Your task to perform on an android device: Go to CNN.com Image 0: 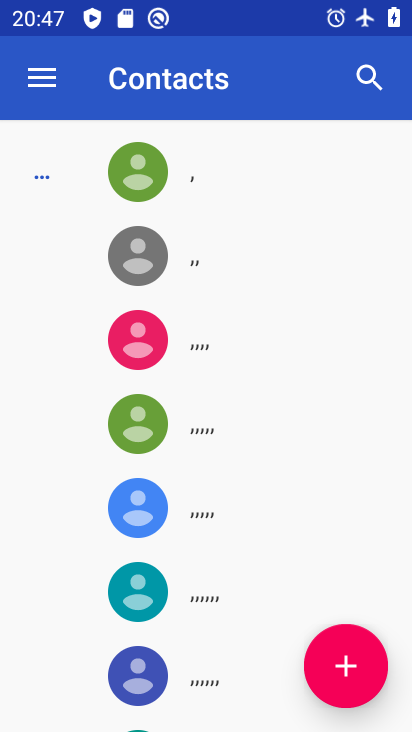
Step 0: press home button
Your task to perform on an android device: Go to CNN.com Image 1: 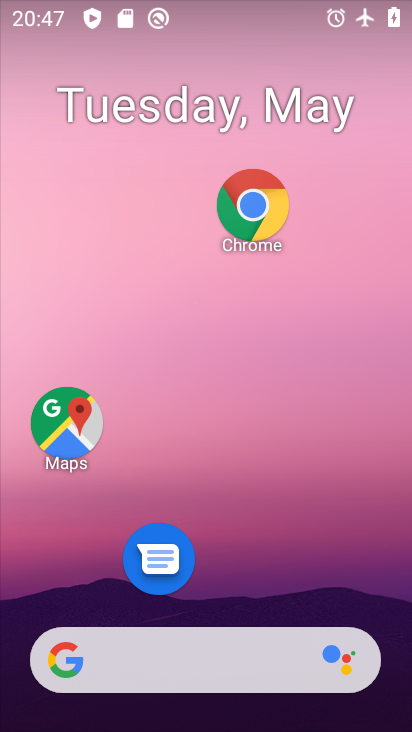
Step 1: click (252, 225)
Your task to perform on an android device: Go to CNN.com Image 2: 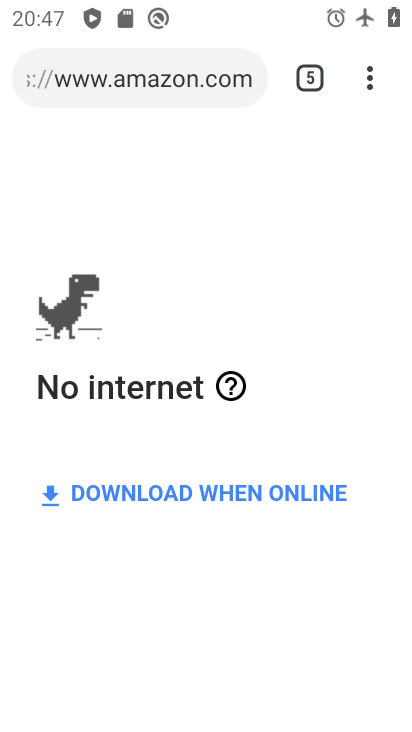
Step 2: click (308, 74)
Your task to perform on an android device: Go to CNN.com Image 3: 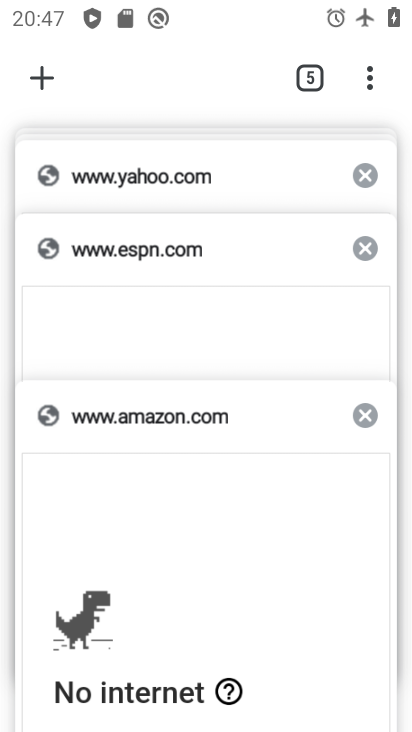
Step 3: click (34, 86)
Your task to perform on an android device: Go to CNN.com Image 4: 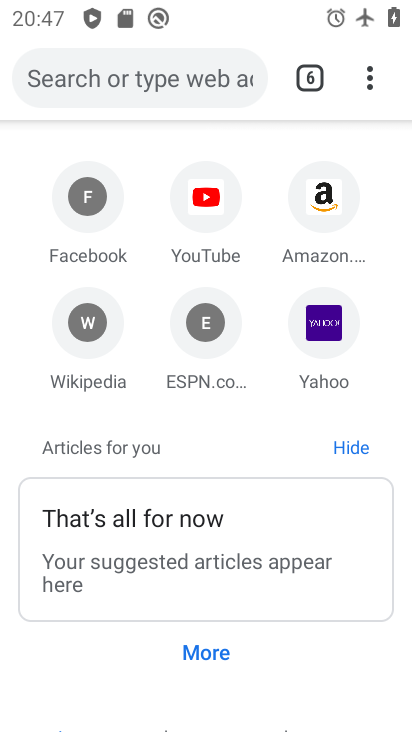
Step 4: click (165, 89)
Your task to perform on an android device: Go to CNN.com Image 5: 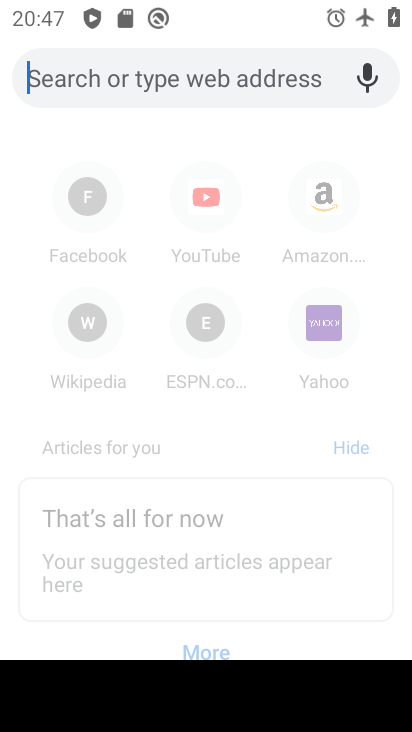
Step 5: type "CNN.com"
Your task to perform on an android device: Go to CNN.com Image 6: 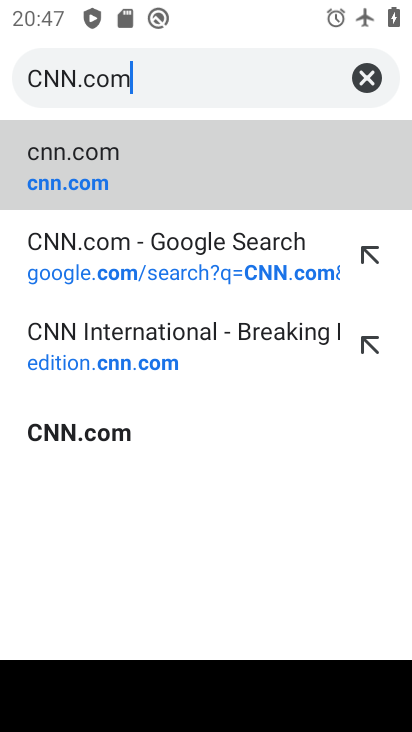
Step 6: click (167, 185)
Your task to perform on an android device: Go to CNN.com Image 7: 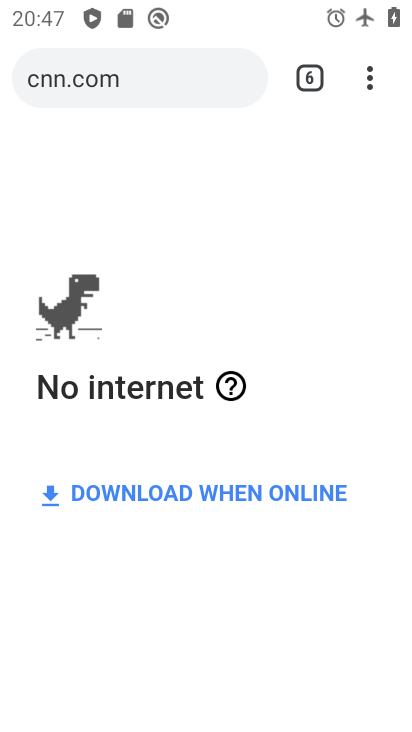
Step 7: task complete